Your task to perform on an android device: Go to notification settings Image 0: 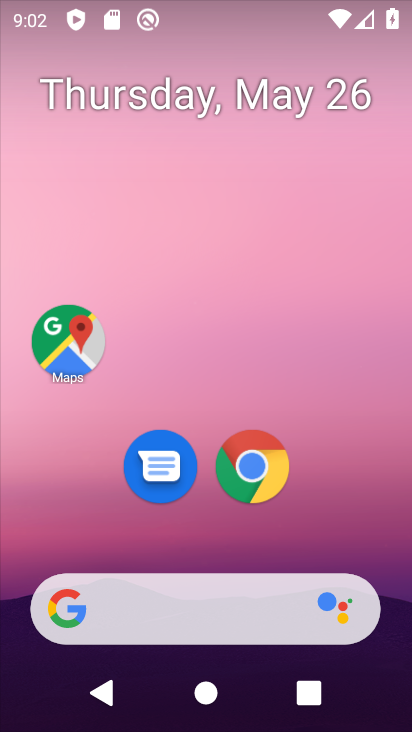
Step 0: drag from (336, 518) to (231, 46)
Your task to perform on an android device: Go to notification settings Image 1: 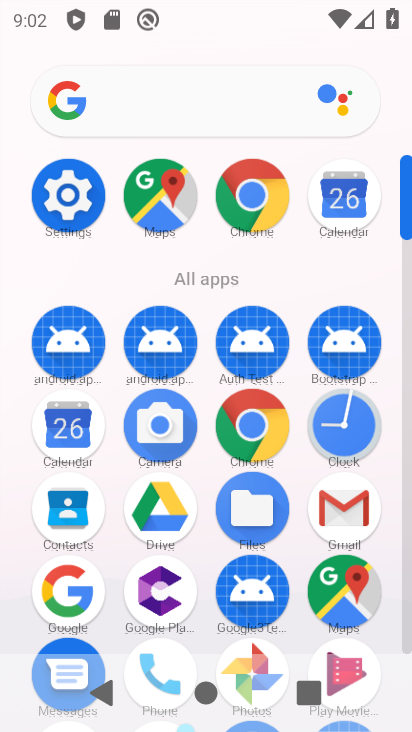
Step 1: click (68, 195)
Your task to perform on an android device: Go to notification settings Image 2: 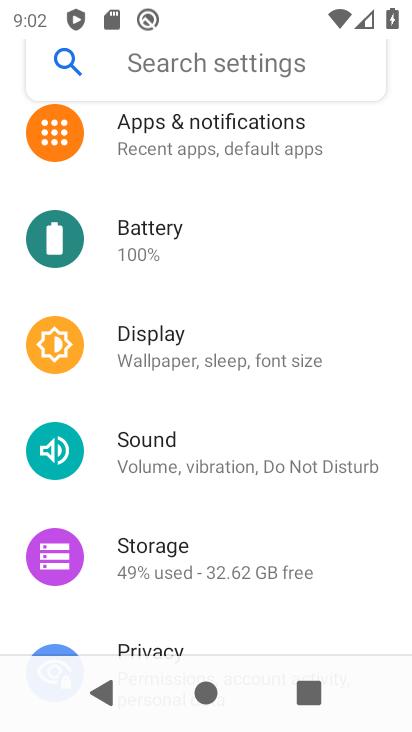
Step 2: click (197, 112)
Your task to perform on an android device: Go to notification settings Image 3: 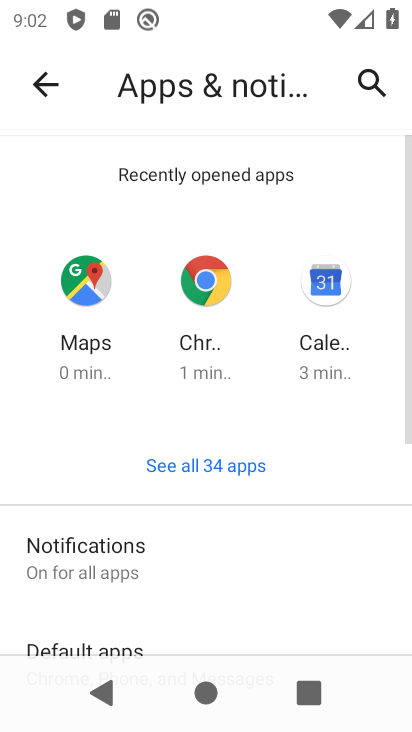
Step 3: task complete